Your task to perform on an android device: Go to Wikipedia Image 0: 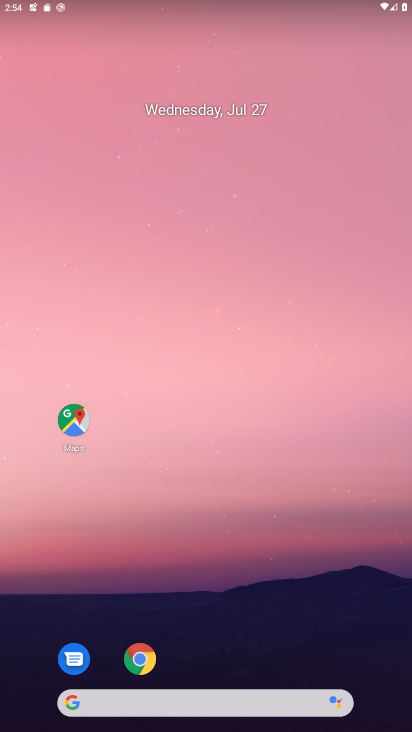
Step 0: drag from (223, 569) to (2, 637)
Your task to perform on an android device: Go to Wikipedia Image 1: 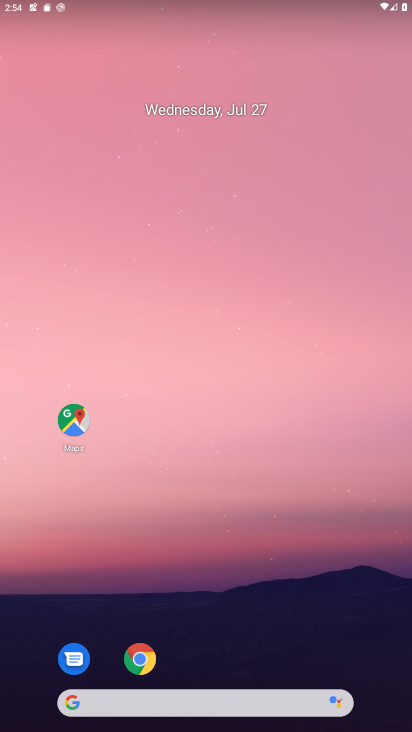
Step 1: drag from (306, 602) to (114, 7)
Your task to perform on an android device: Go to Wikipedia Image 2: 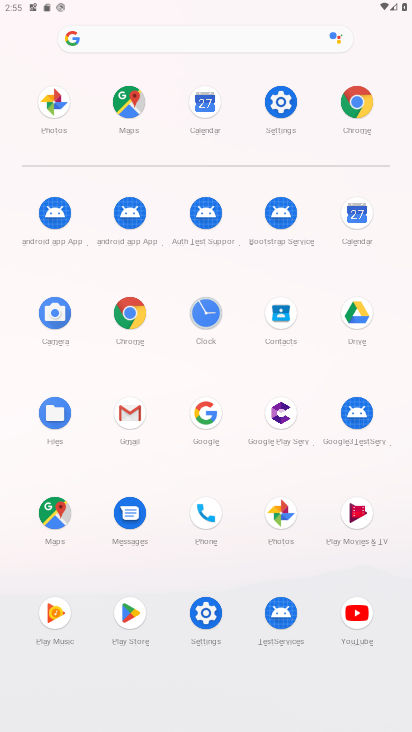
Step 2: click (358, 93)
Your task to perform on an android device: Go to Wikipedia Image 3: 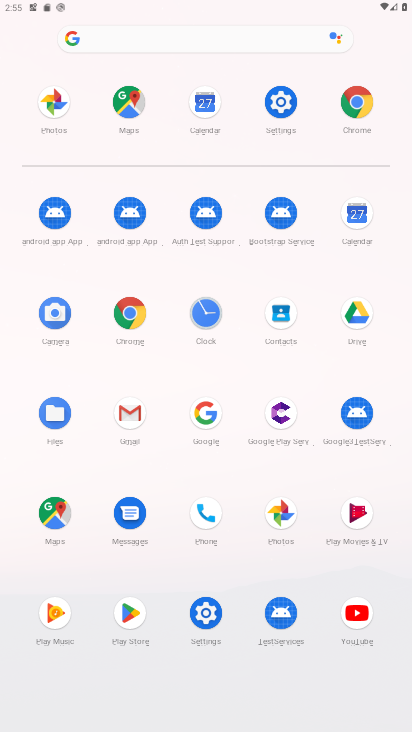
Step 3: click (361, 96)
Your task to perform on an android device: Go to Wikipedia Image 4: 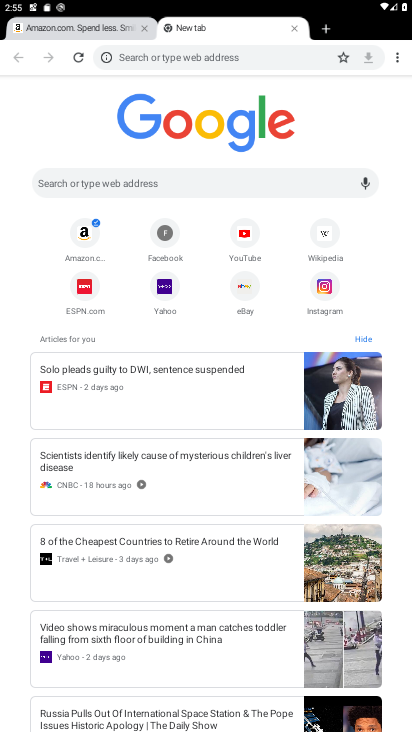
Step 4: click (320, 235)
Your task to perform on an android device: Go to Wikipedia Image 5: 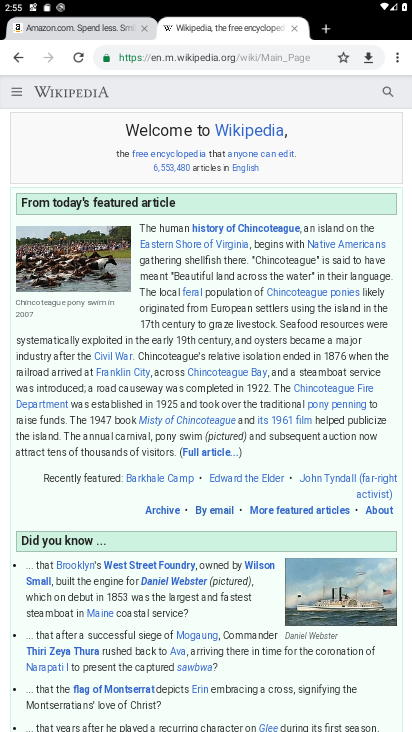
Step 5: task complete